Your task to perform on an android device: Add alienware area 51 to the cart on bestbuy, then select checkout. Image 0: 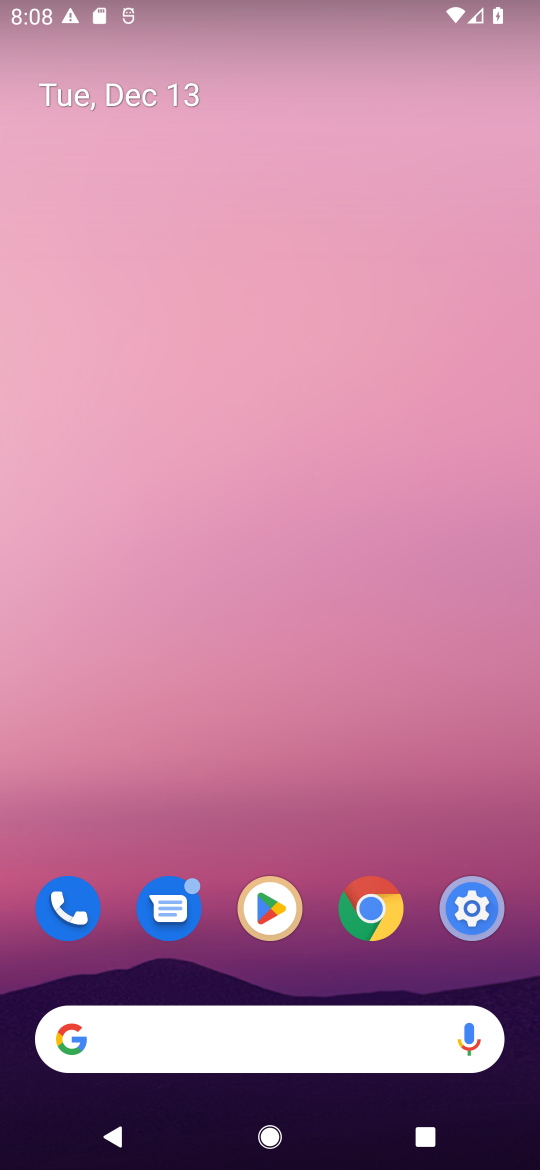
Step 0: press home button
Your task to perform on an android device: Add alienware area 51 to the cart on bestbuy, then select checkout. Image 1: 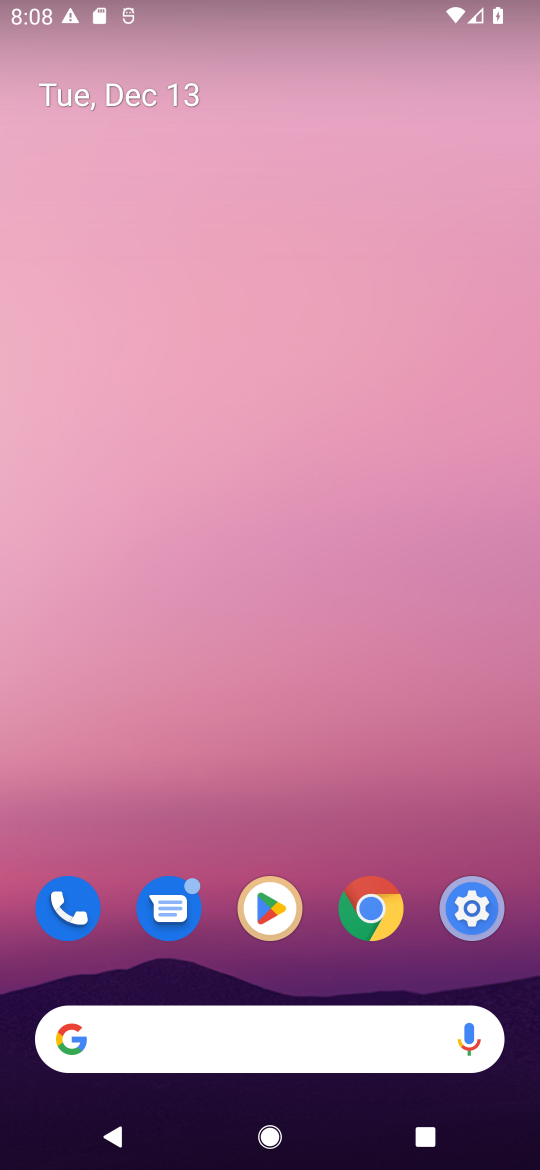
Step 1: click (107, 1044)
Your task to perform on an android device: Add alienware area 51 to the cart on bestbuy, then select checkout. Image 2: 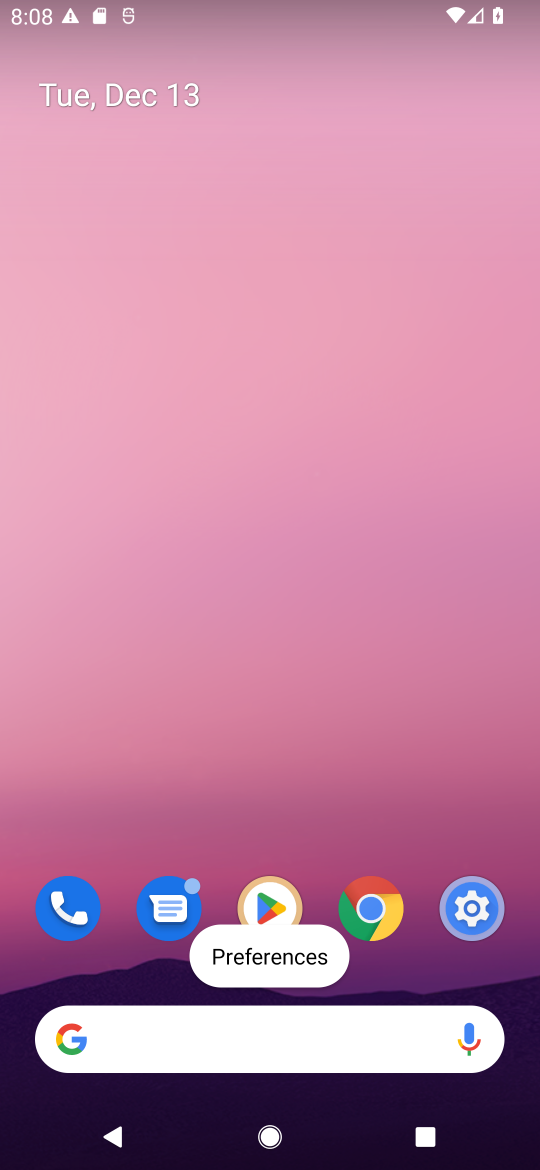
Step 2: click (110, 1019)
Your task to perform on an android device: Add alienware area 51 to the cart on bestbuy, then select checkout. Image 3: 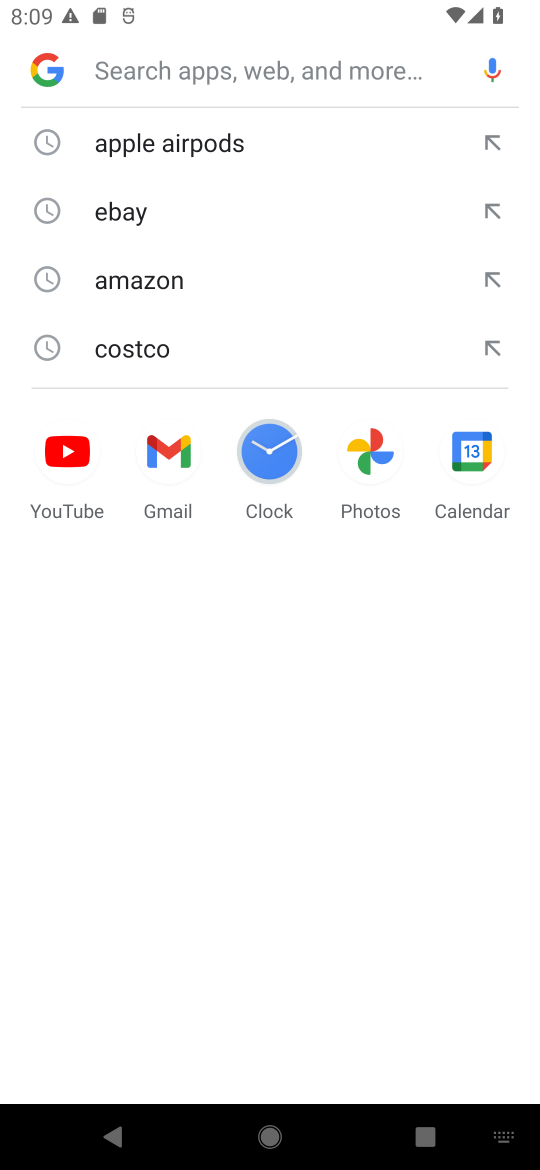
Step 3: type "bestbuy"
Your task to perform on an android device: Add alienware area 51 to the cart on bestbuy, then select checkout. Image 4: 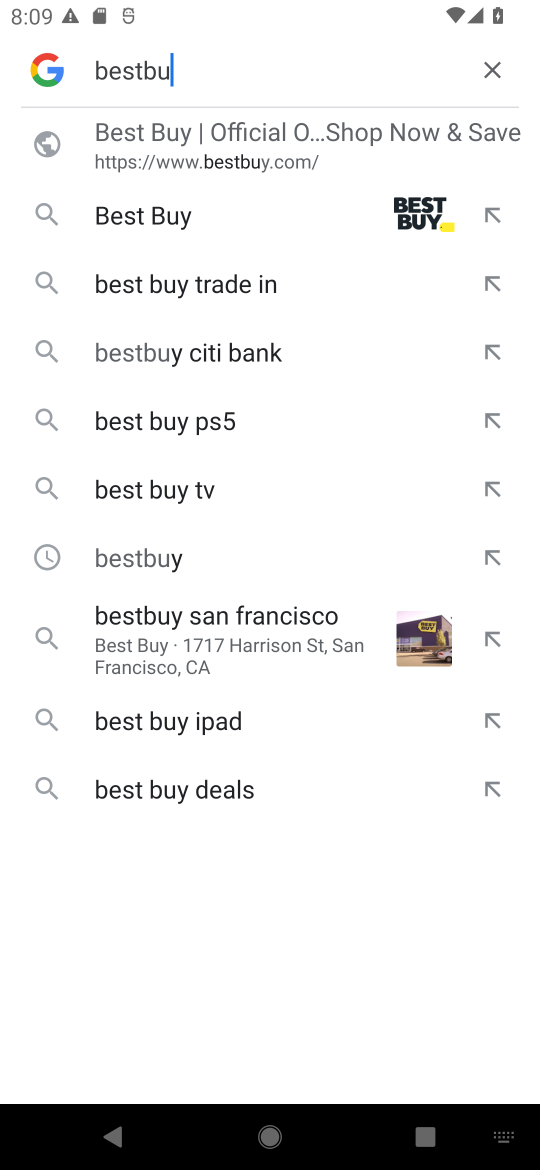
Step 4: press enter
Your task to perform on an android device: Add alienware area 51 to the cart on bestbuy, then select checkout. Image 5: 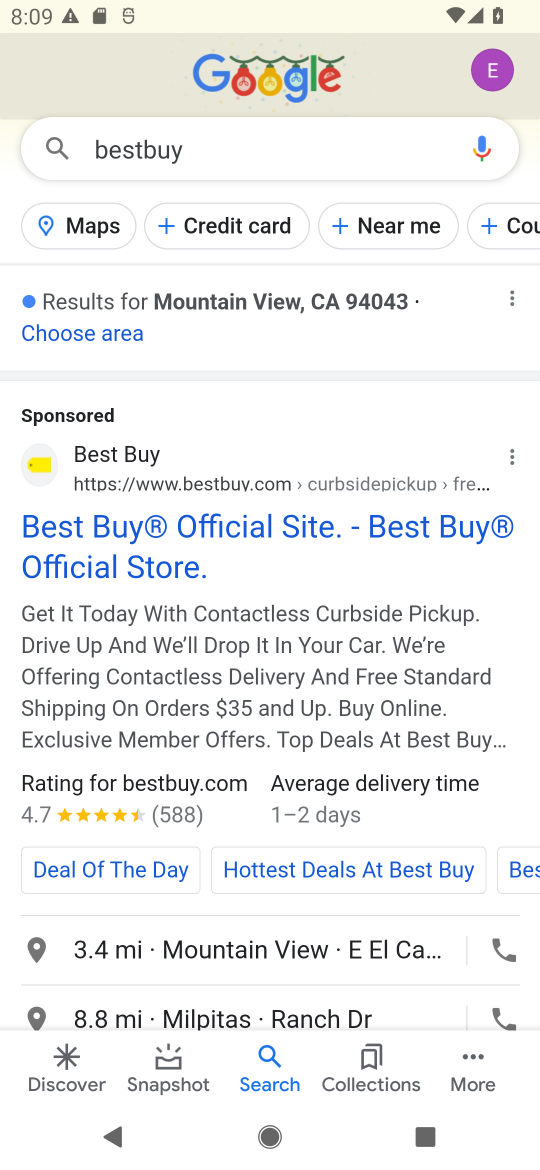
Step 5: click (139, 539)
Your task to perform on an android device: Add alienware area 51 to the cart on bestbuy, then select checkout. Image 6: 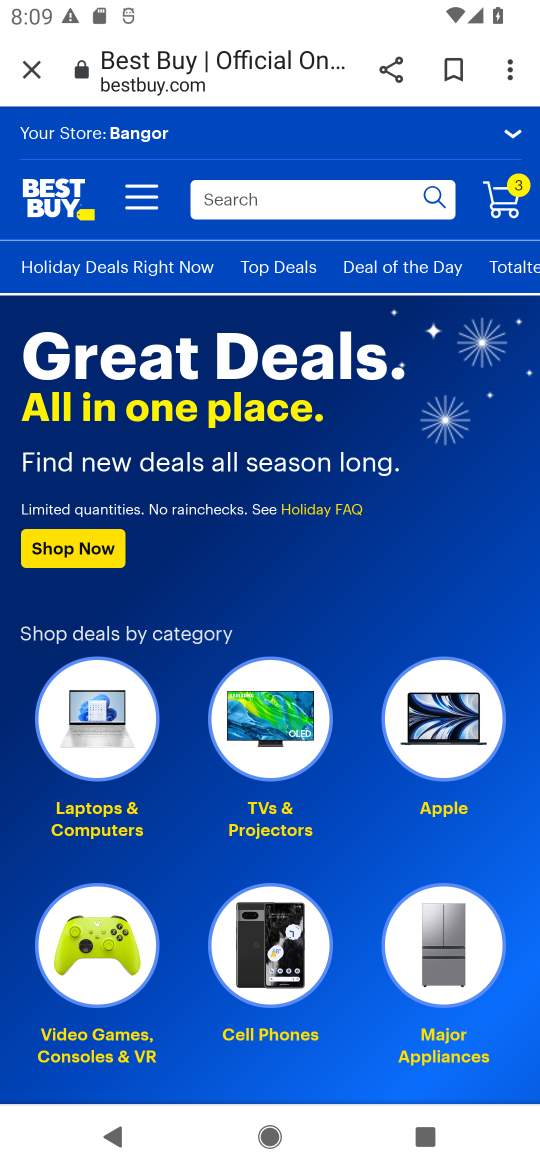
Step 6: click (240, 201)
Your task to perform on an android device: Add alienware area 51 to the cart on bestbuy, then select checkout. Image 7: 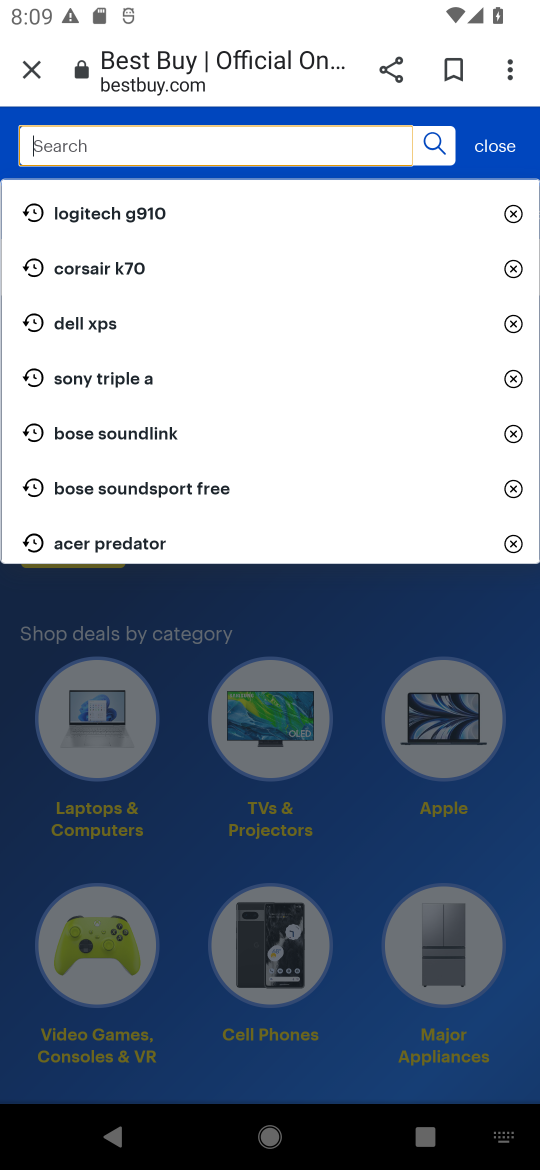
Step 7: type "alienware area 51"
Your task to perform on an android device: Add alienware area 51 to the cart on bestbuy, then select checkout. Image 8: 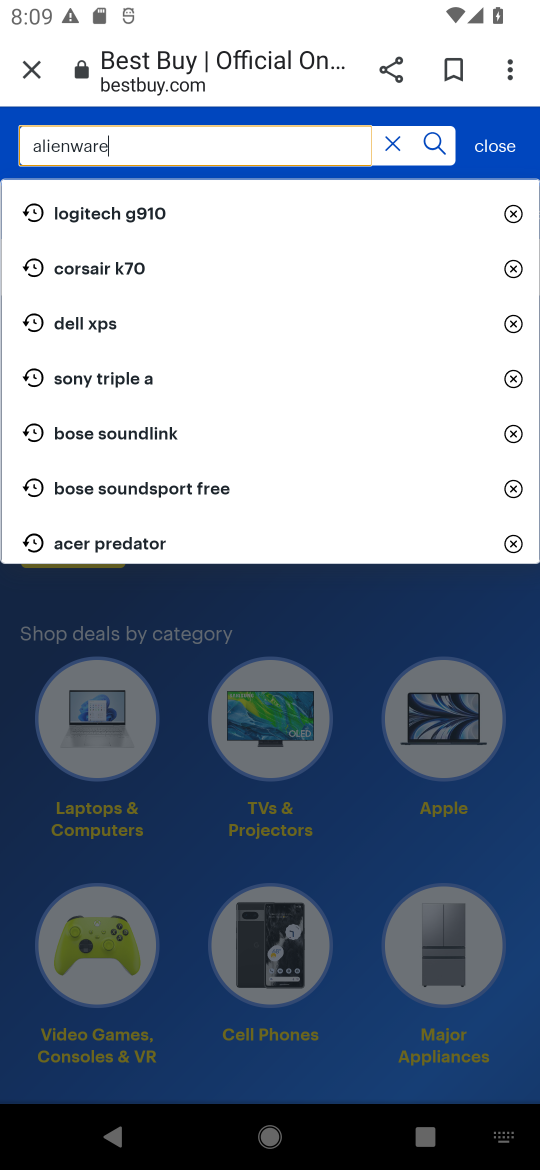
Step 8: press enter
Your task to perform on an android device: Add alienware area 51 to the cart on bestbuy, then select checkout. Image 9: 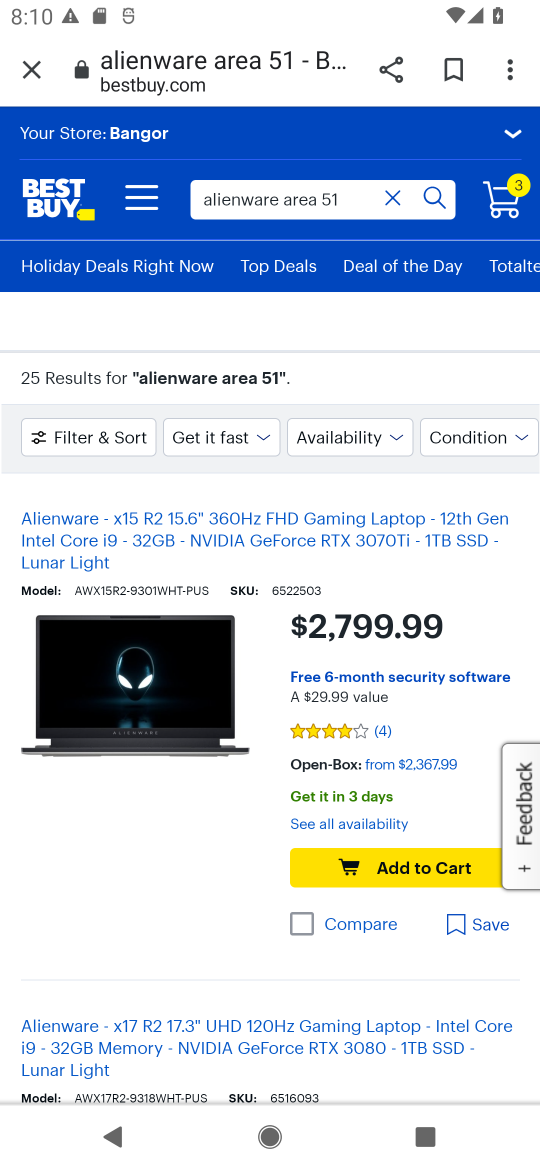
Step 9: drag from (365, 965) to (364, 566)
Your task to perform on an android device: Add alienware area 51 to the cart on bestbuy, then select checkout. Image 10: 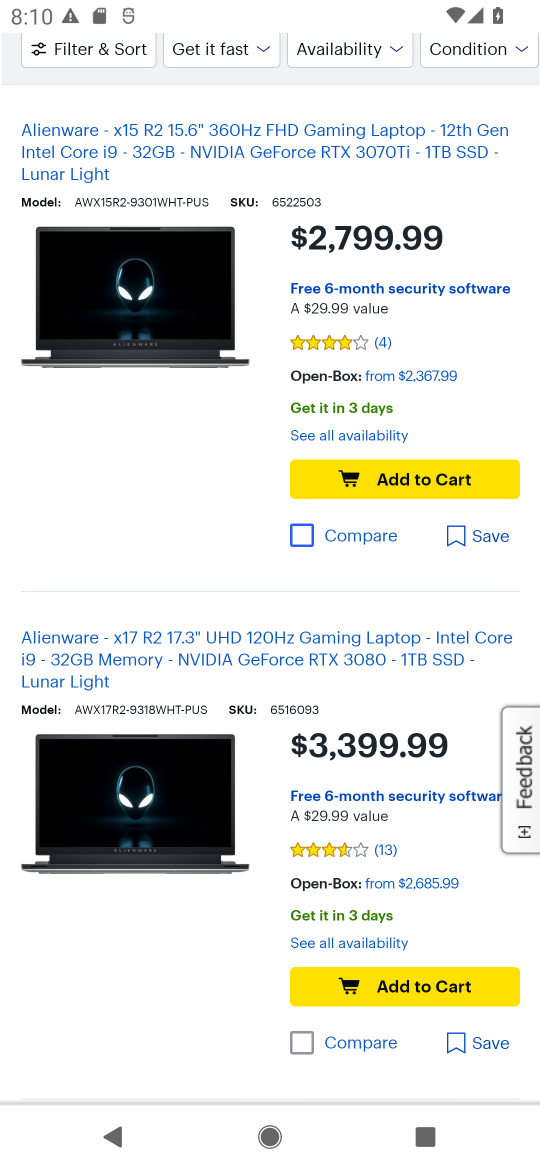
Step 10: click (434, 481)
Your task to perform on an android device: Add alienware area 51 to the cart on bestbuy, then select checkout. Image 11: 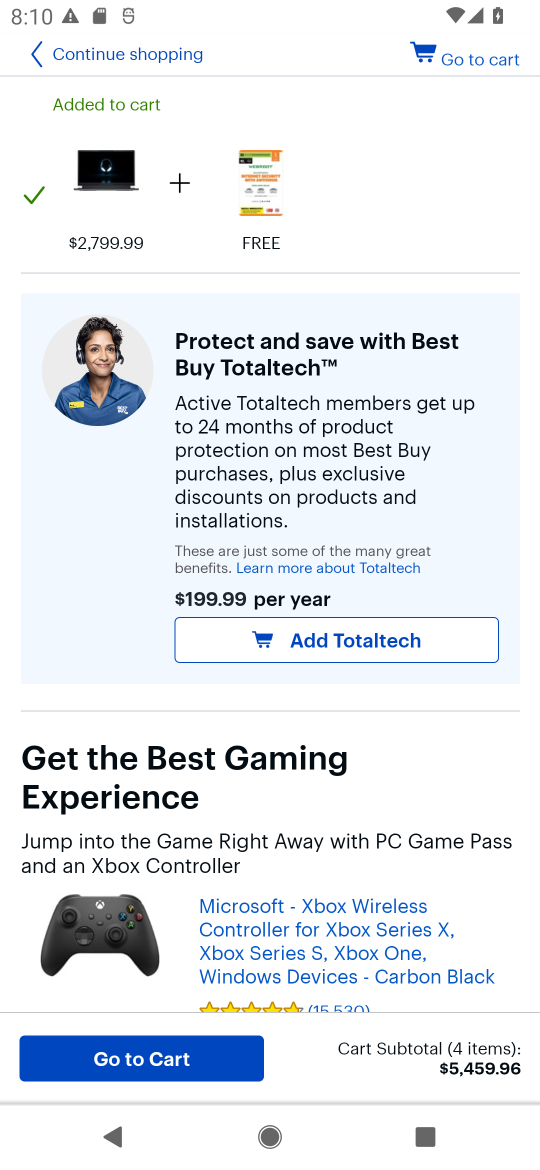
Step 11: click (99, 1062)
Your task to perform on an android device: Add alienware area 51 to the cart on bestbuy, then select checkout. Image 12: 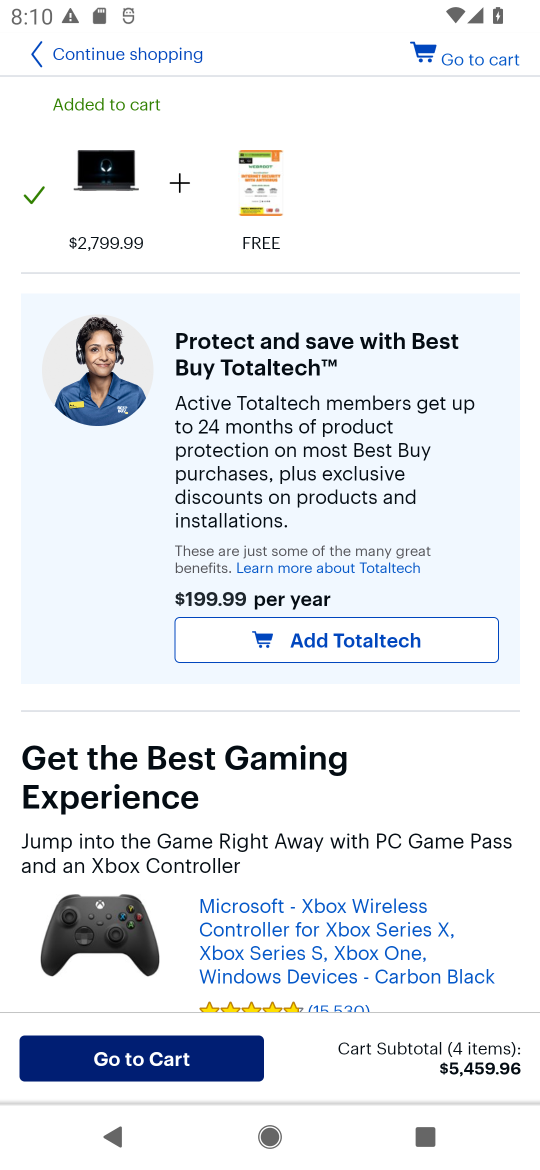
Step 12: click (128, 1055)
Your task to perform on an android device: Add alienware area 51 to the cart on bestbuy, then select checkout. Image 13: 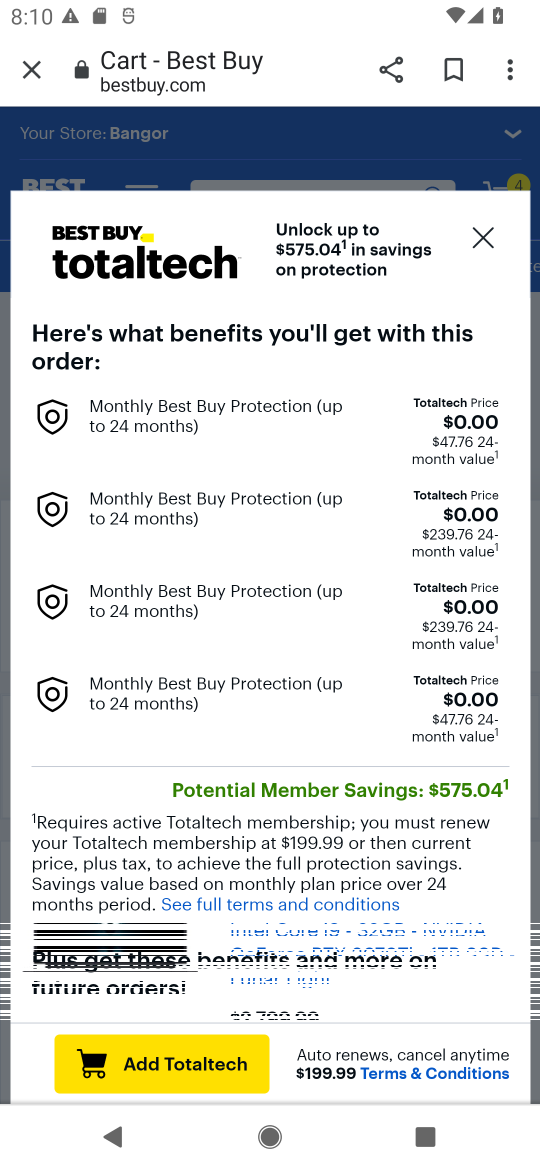
Step 13: click (482, 240)
Your task to perform on an android device: Add alienware area 51 to the cart on bestbuy, then select checkout. Image 14: 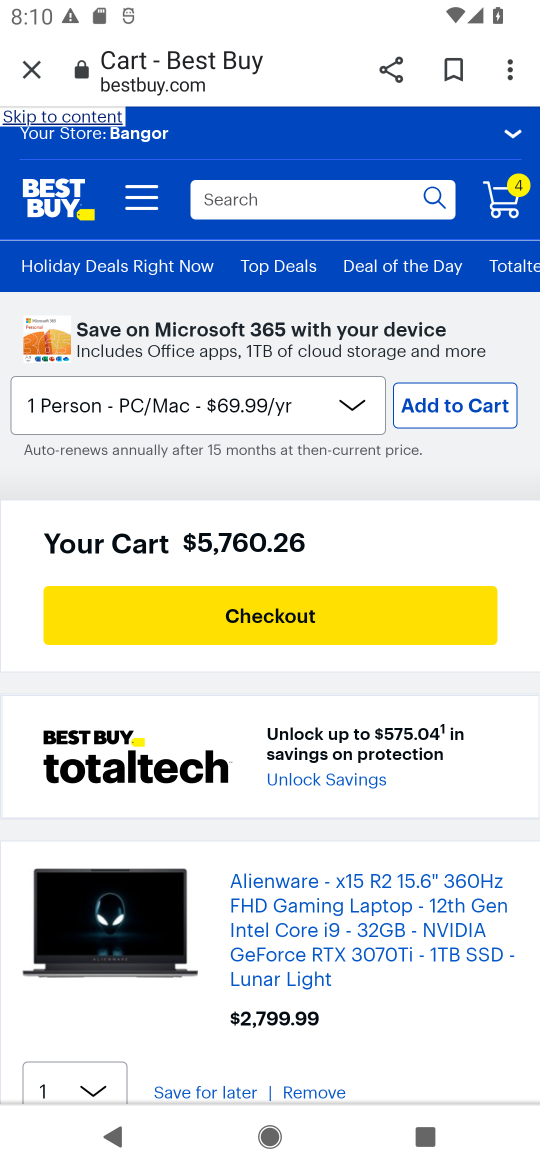
Step 14: click (230, 611)
Your task to perform on an android device: Add alienware area 51 to the cart on bestbuy, then select checkout. Image 15: 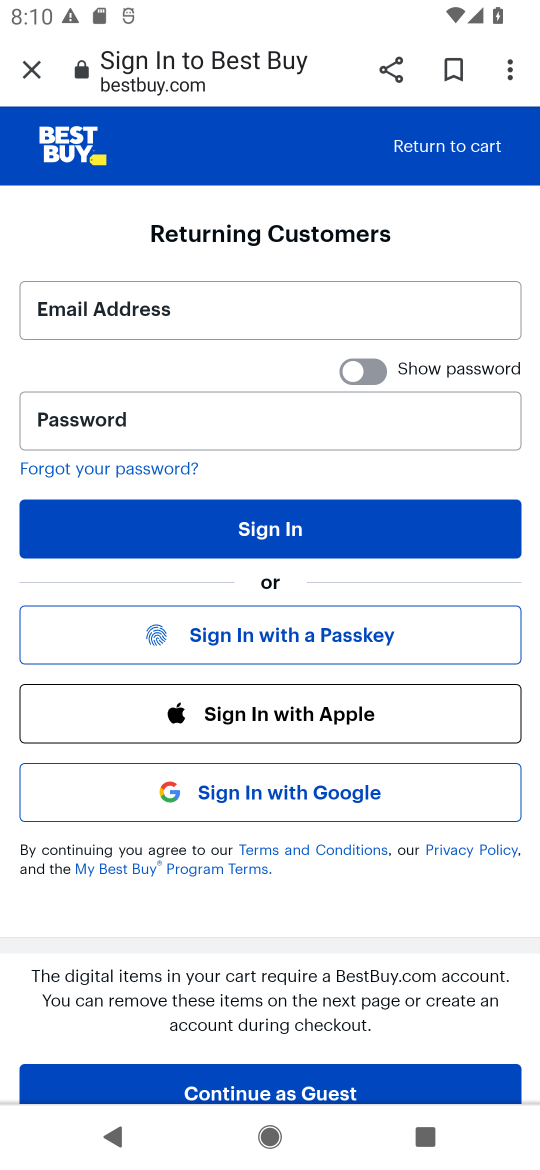
Step 15: task complete